Your task to perform on an android device: turn off notifications settings in the gmail app Image 0: 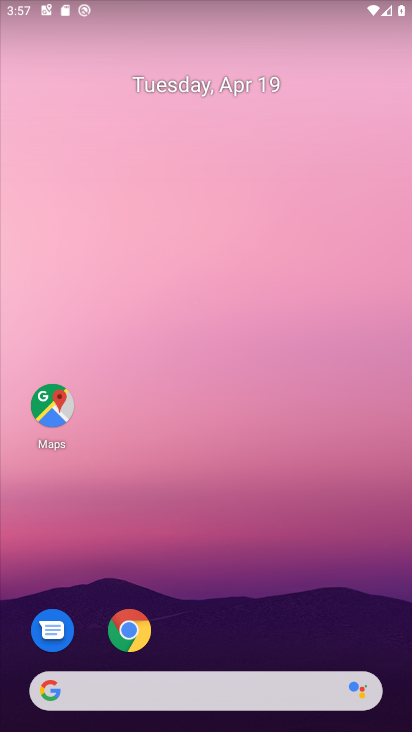
Step 0: drag from (269, 609) to (262, 296)
Your task to perform on an android device: turn off notifications settings in the gmail app Image 1: 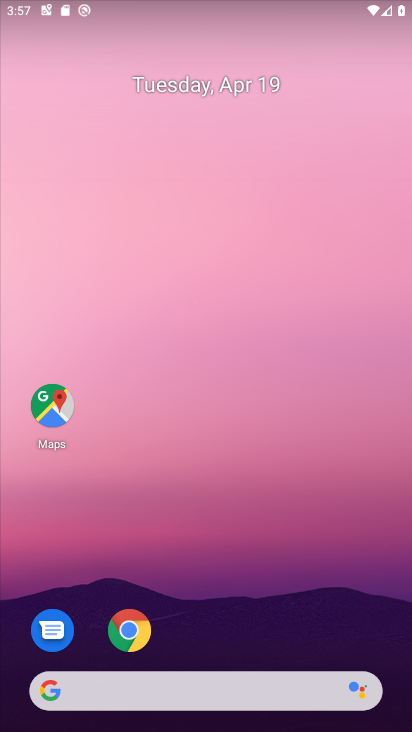
Step 1: drag from (210, 608) to (294, 98)
Your task to perform on an android device: turn off notifications settings in the gmail app Image 2: 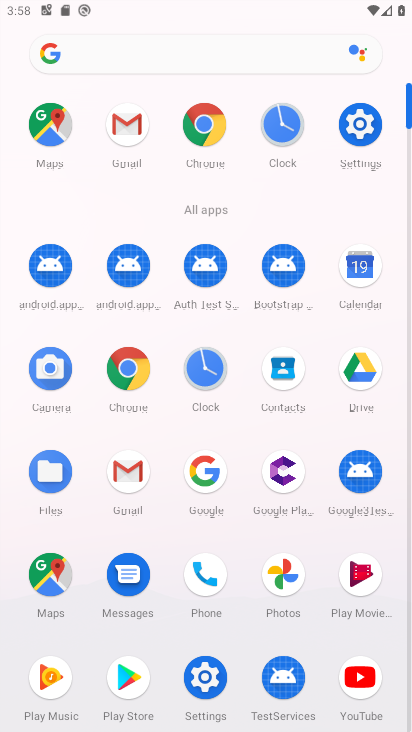
Step 2: click (125, 136)
Your task to perform on an android device: turn off notifications settings in the gmail app Image 3: 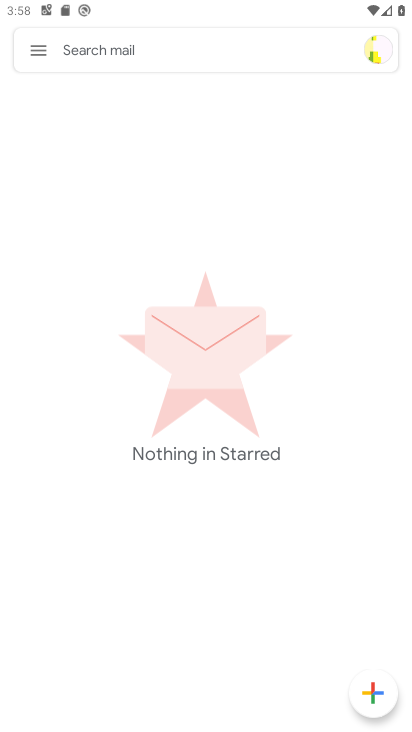
Step 3: click (35, 44)
Your task to perform on an android device: turn off notifications settings in the gmail app Image 4: 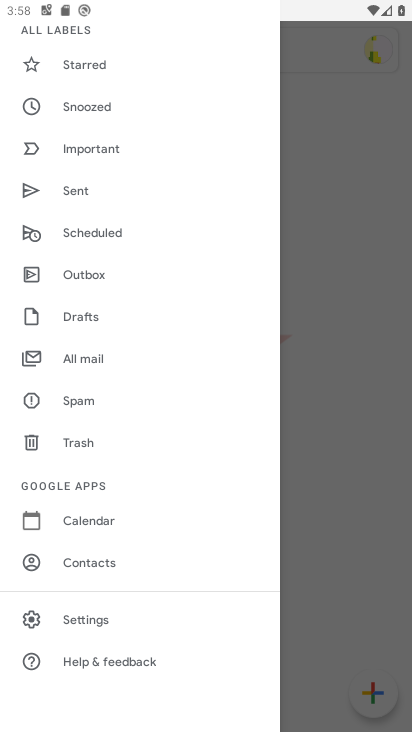
Step 4: click (100, 619)
Your task to perform on an android device: turn off notifications settings in the gmail app Image 5: 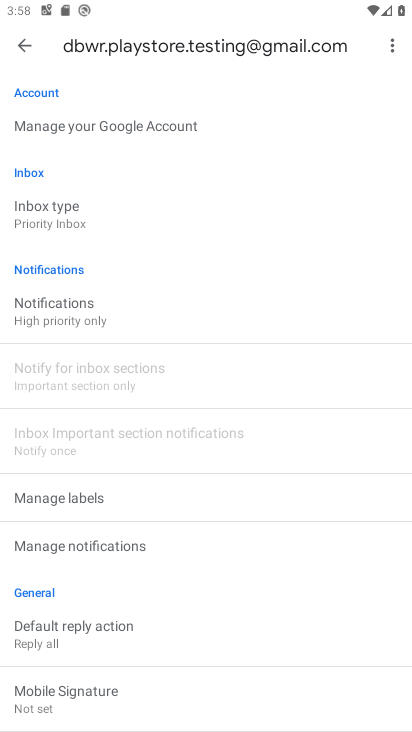
Step 5: click (83, 312)
Your task to perform on an android device: turn off notifications settings in the gmail app Image 6: 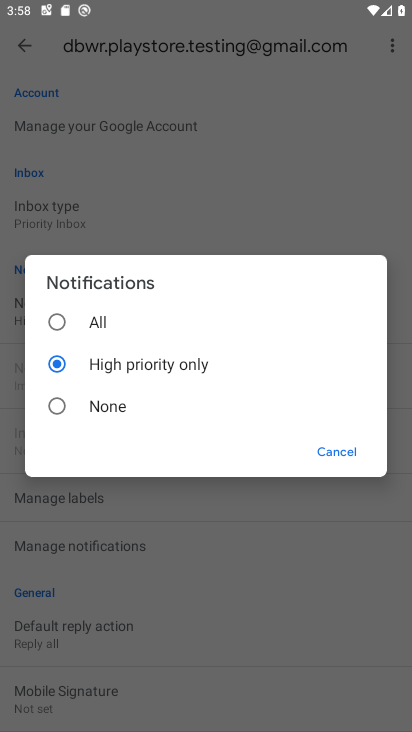
Step 6: click (98, 408)
Your task to perform on an android device: turn off notifications settings in the gmail app Image 7: 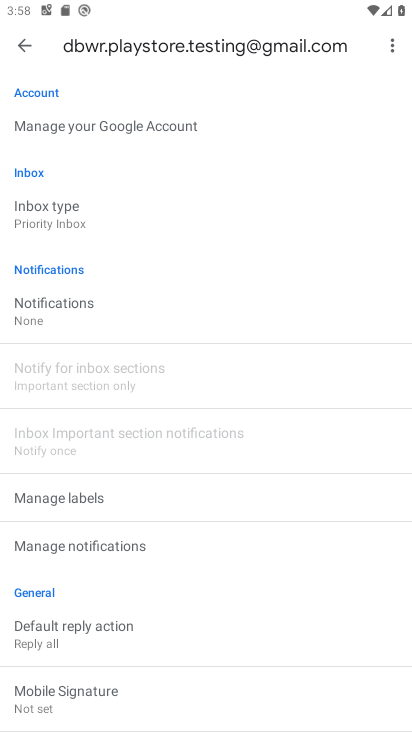
Step 7: task complete